Your task to perform on an android device: Open CNN.com Image 0: 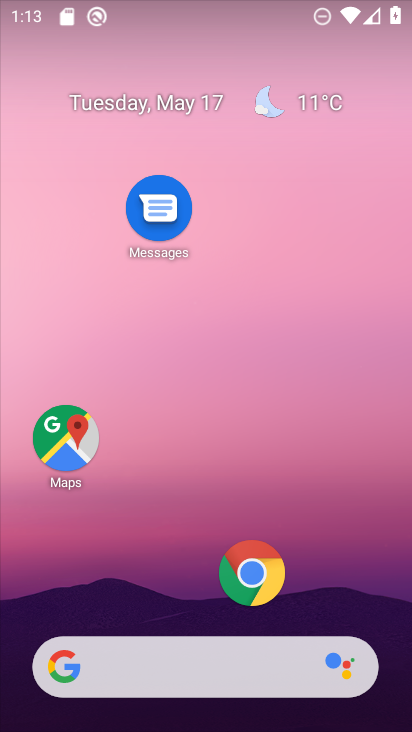
Step 0: click (248, 566)
Your task to perform on an android device: Open CNN.com Image 1: 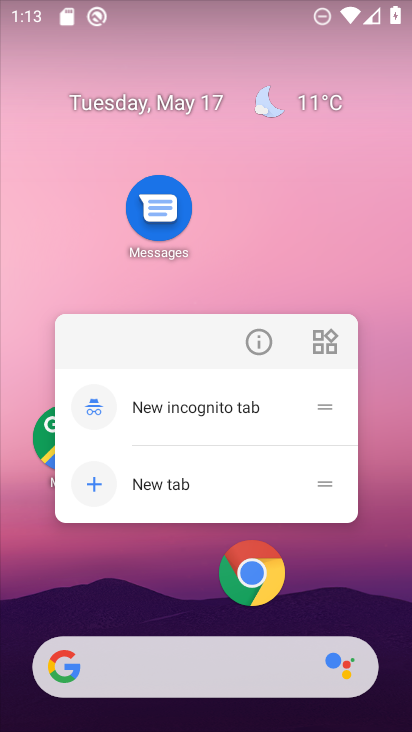
Step 1: click (248, 566)
Your task to perform on an android device: Open CNN.com Image 2: 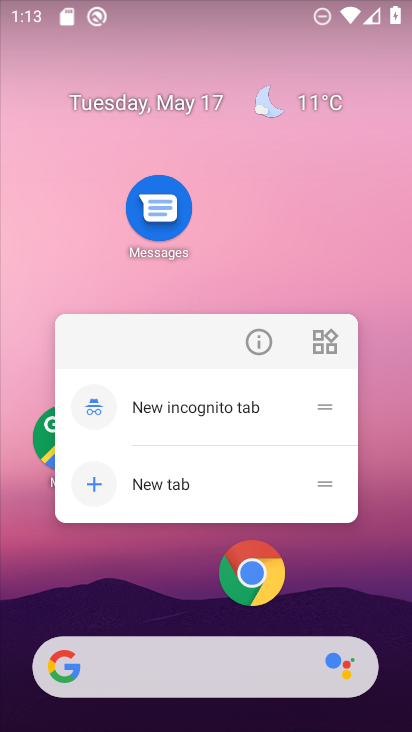
Step 2: click (248, 566)
Your task to perform on an android device: Open CNN.com Image 3: 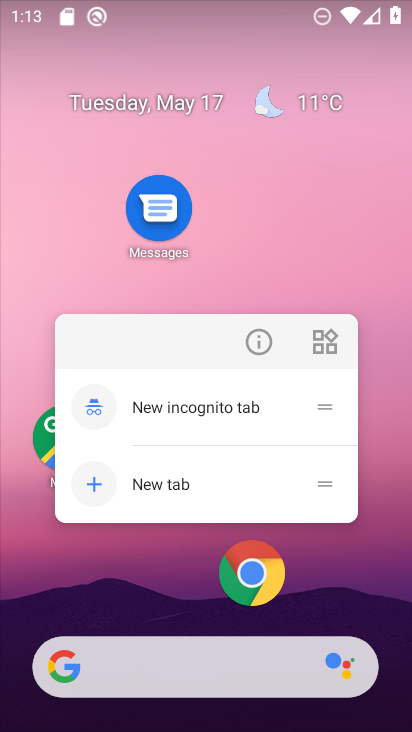
Step 3: click (248, 566)
Your task to perform on an android device: Open CNN.com Image 4: 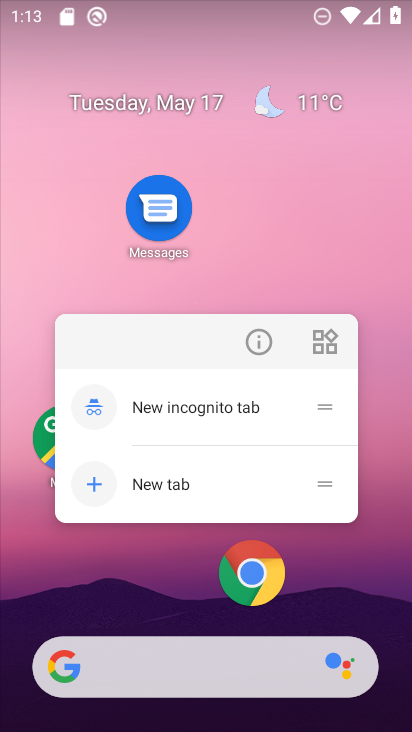
Step 4: click (248, 566)
Your task to perform on an android device: Open CNN.com Image 5: 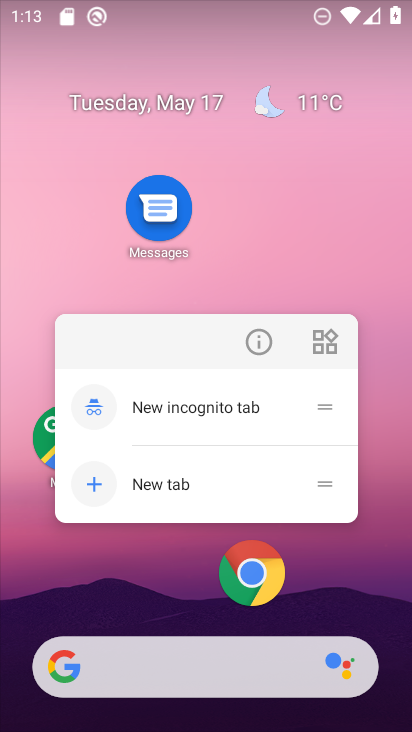
Step 5: click (311, 627)
Your task to perform on an android device: Open CNN.com Image 6: 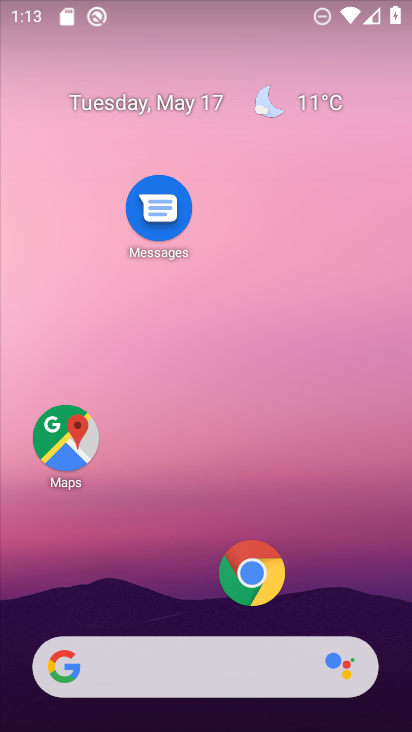
Step 6: drag from (316, 619) to (311, 100)
Your task to perform on an android device: Open CNN.com Image 7: 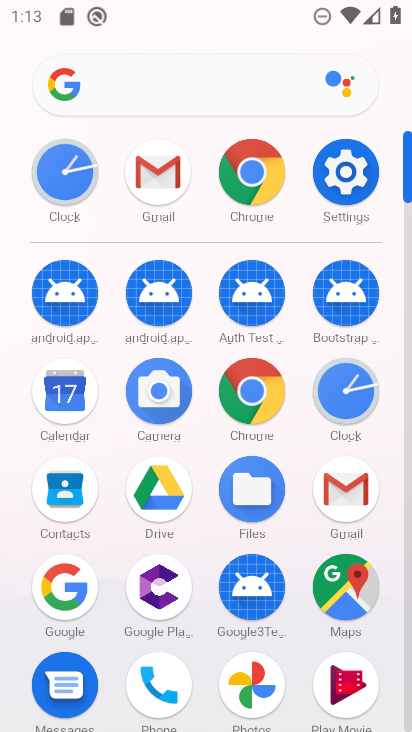
Step 7: click (250, 386)
Your task to perform on an android device: Open CNN.com Image 8: 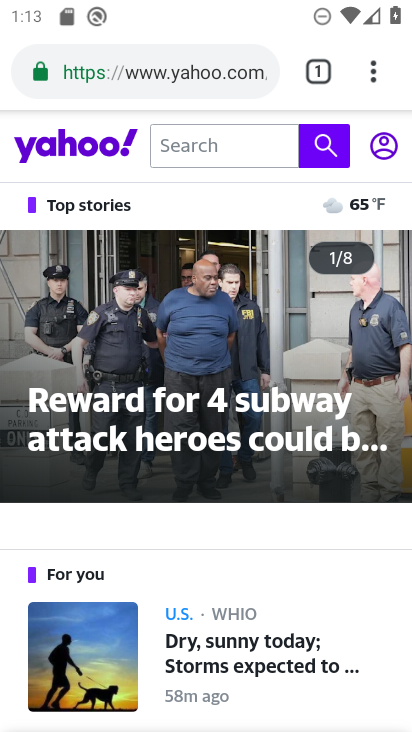
Step 8: click (316, 69)
Your task to perform on an android device: Open CNN.com Image 9: 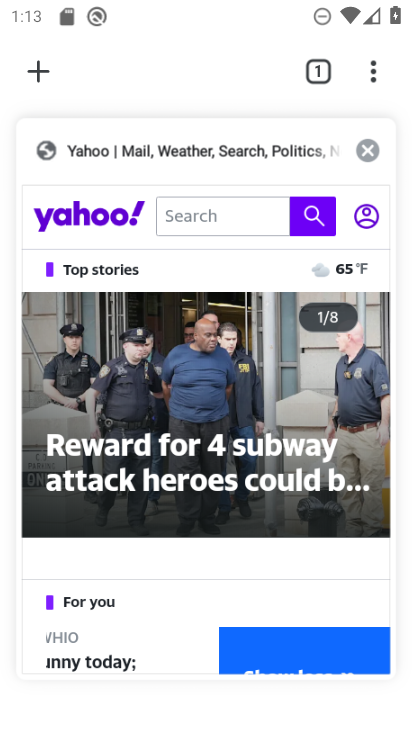
Step 9: click (366, 140)
Your task to perform on an android device: Open CNN.com Image 10: 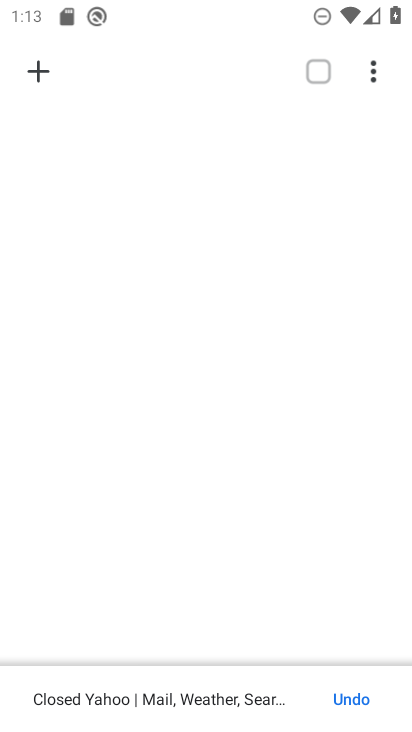
Step 10: click (45, 74)
Your task to perform on an android device: Open CNN.com Image 11: 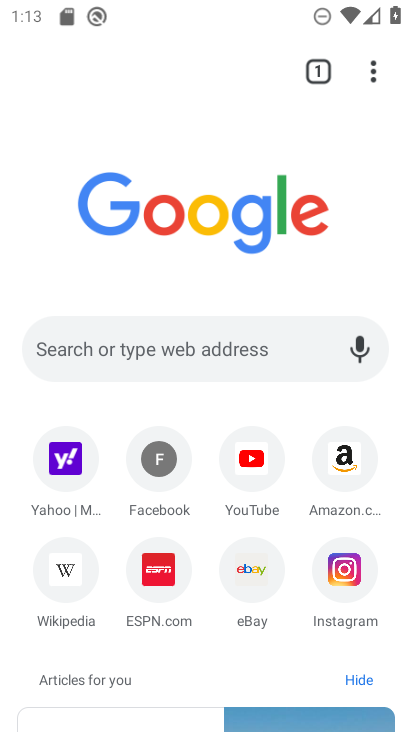
Step 11: click (147, 342)
Your task to perform on an android device: Open CNN.com Image 12: 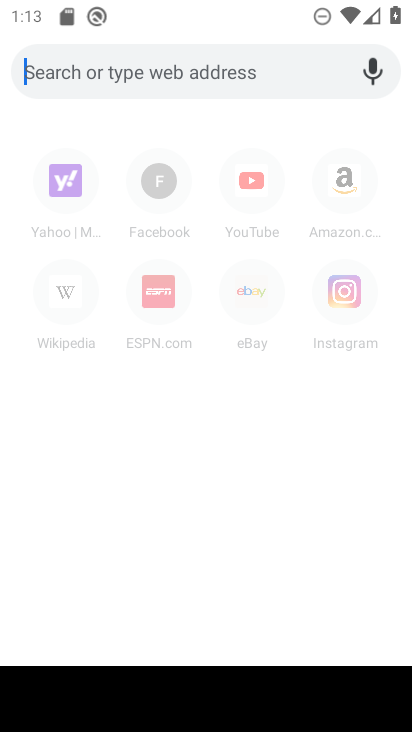
Step 12: type "cnn.com"
Your task to perform on an android device: Open CNN.com Image 13: 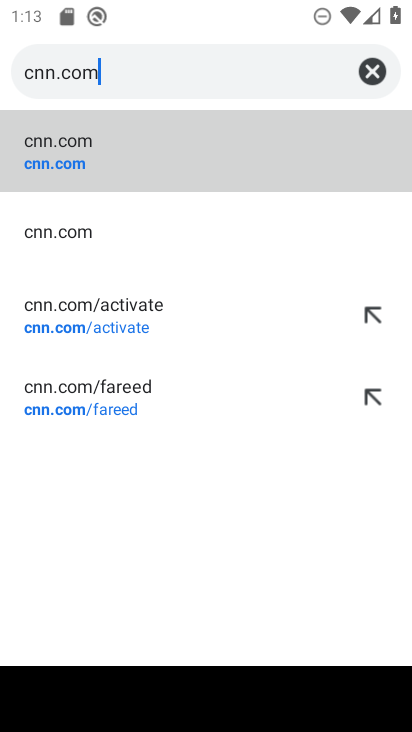
Step 13: click (104, 149)
Your task to perform on an android device: Open CNN.com Image 14: 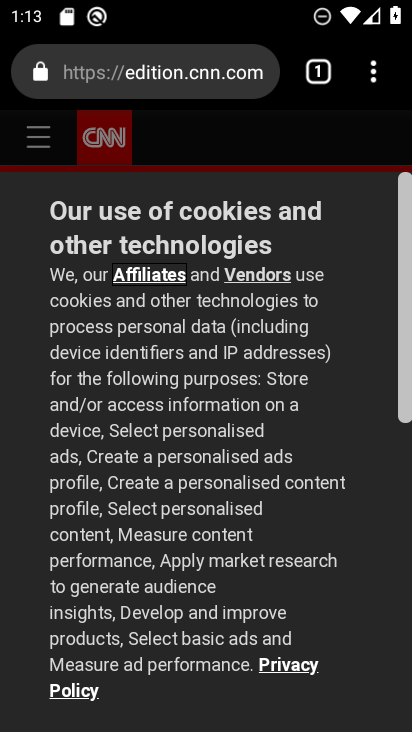
Step 14: drag from (174, 677) to (210, 213)
Your task to perform on an android device: Open CNN.com Image 15: 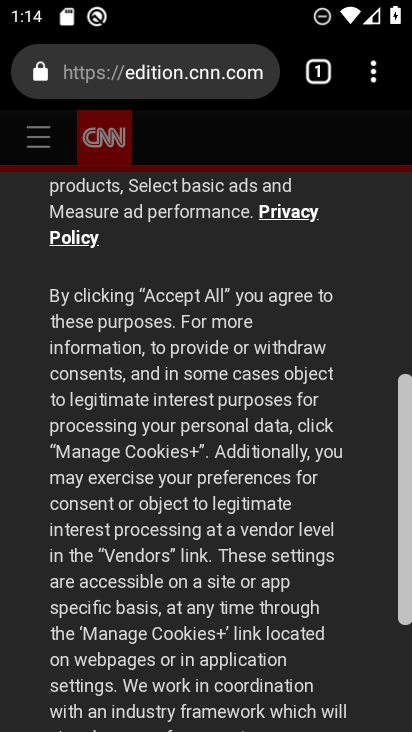
Step 15: drag from (180, 685) to (236, 215)
Your task to perform on an android device: Open CNN.com Image 16: 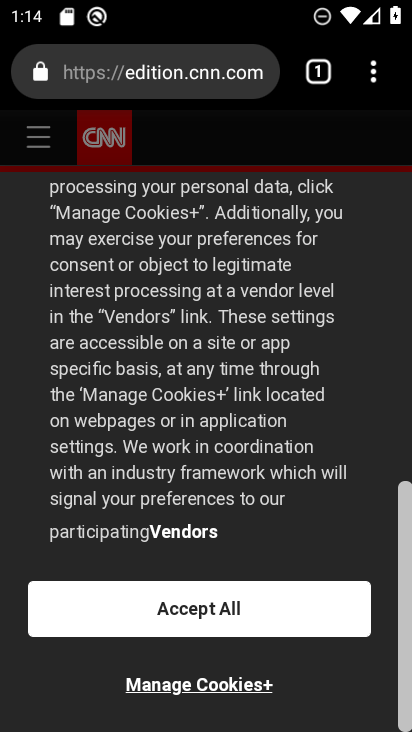
Step 16: click (215, 617)
Your task to perform on an android device: Open CNN.com Image 17: 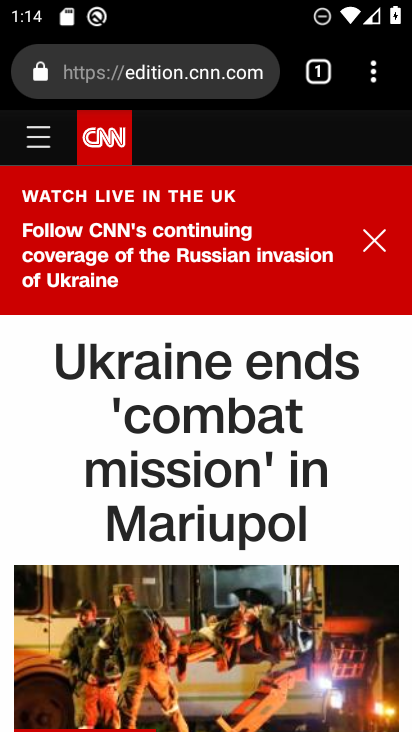
Step 17: task complete